Your task to perform on an android device: toggle pop-ups in chrome Image 0: 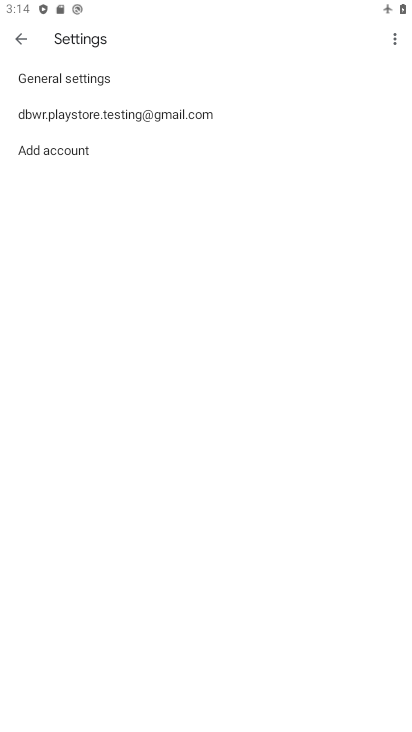
Step 0: press home button
Your task to perform on an android device: toggle pop-ups in chrome Image 1: 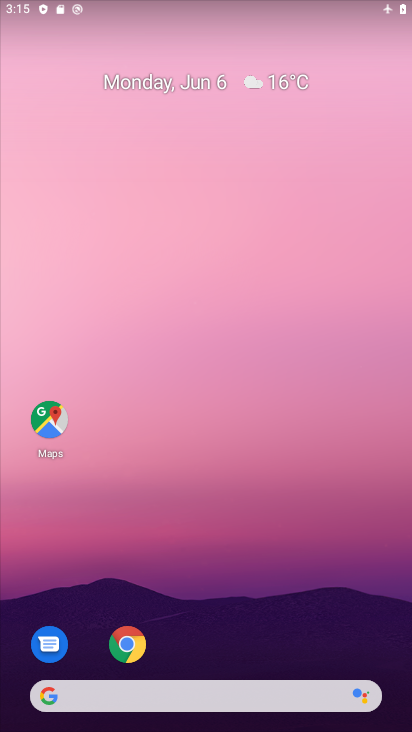
Step 1: drag from (201, 671) to (205, 371)
Your task to perform on an android device: toggle pop-ups in chrome Image 2: 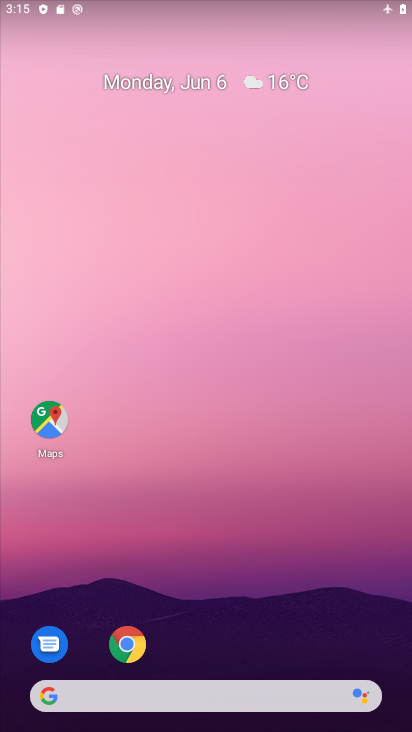
Step 2: click (126, 644)
Your task to perform on an android device: toggle pop-ups in chrome Image 3: 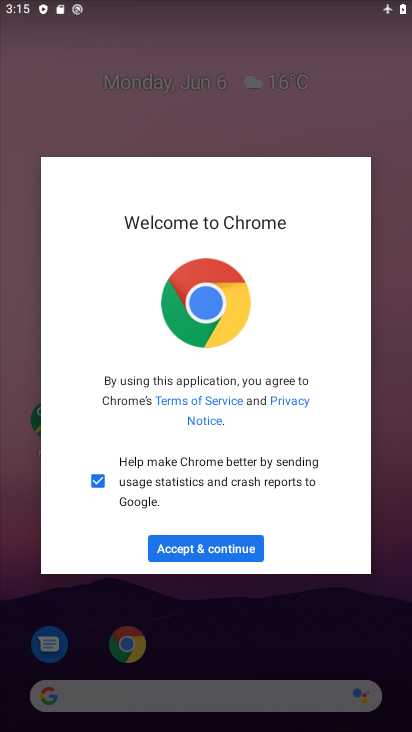
Step 3: click (211, 552)
Your task to perform on an android device: toggle pop-ups in chrome Image 4: 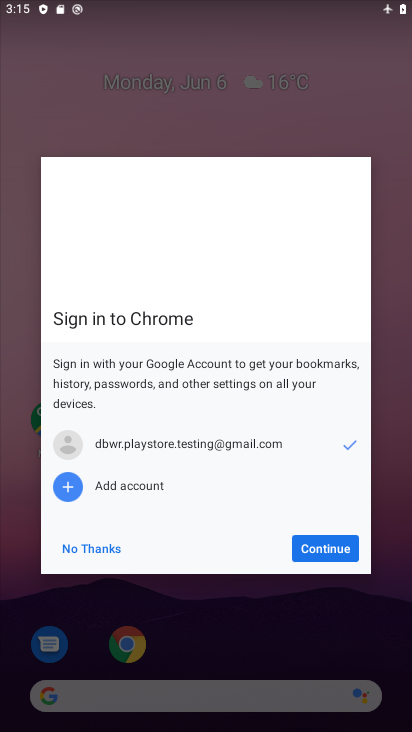
Step 4: click (338, 562)
Your task to perform on an android device: toggle pop-ups in chrome Image 5: 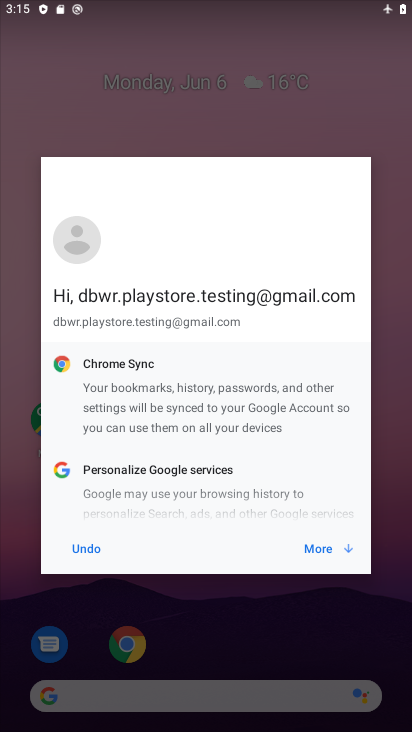
Step 5: click (327, 543)
Your task to perform on an android device: toggle pop-ups in chrome Image 6: 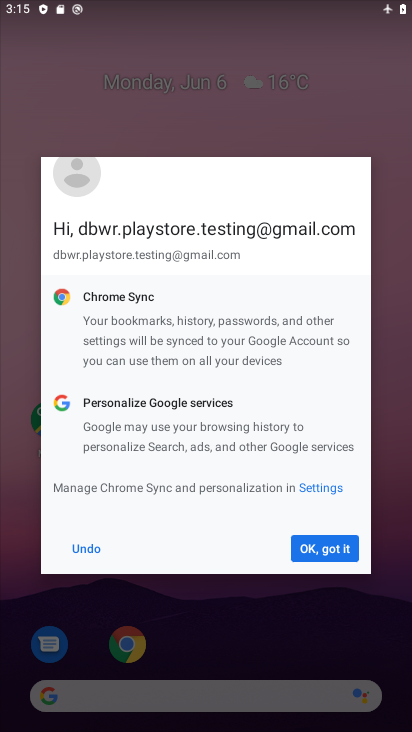
Step 6: click (327, 543)
Your task to perform on an android device: toggle pop-ups in chrome Image 7: 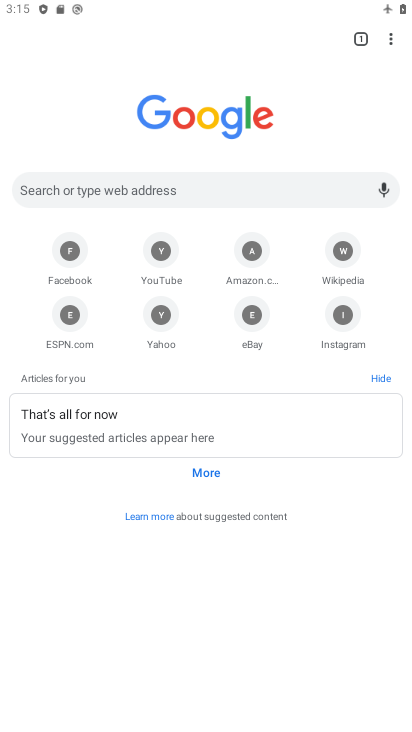
Step 7: click (395, 42)
Your task to perform on an android device: toggle pop-ups in chrome Image 8: 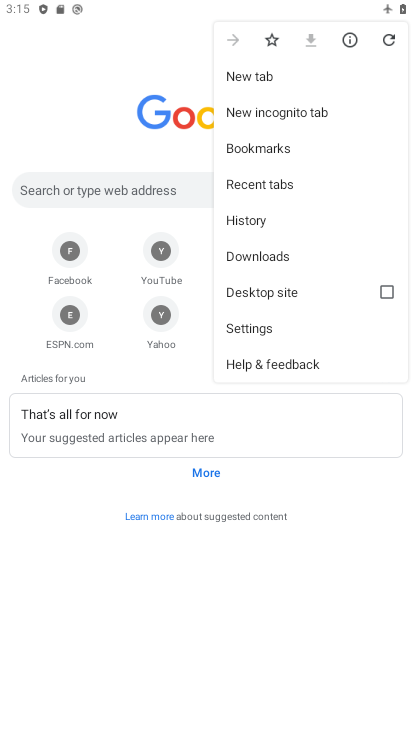
Step 8: click (254, 331)
Your task to perform on an android device: toggle pop-ups in chrome Image 9: 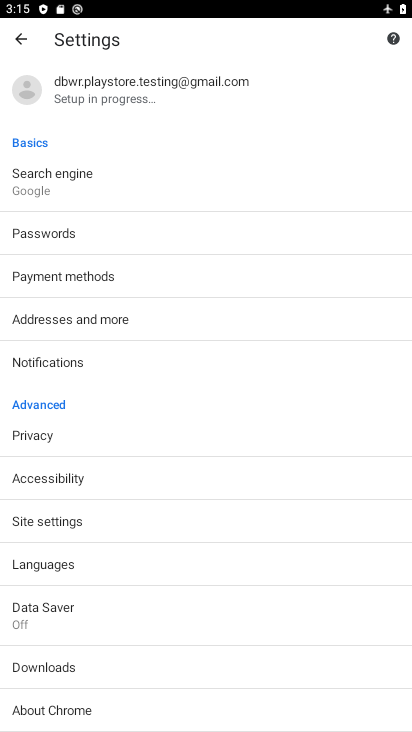
Step 9: click (74, 526)
Your task to perform on an android device: toggle pop-ups in chrome Image 10: 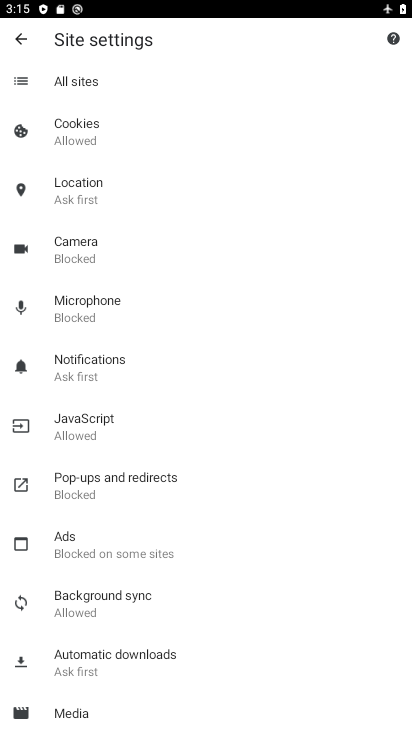
Step 10: click (99, 479)
Your task to perform on an android device: toggle pop-ups in chrome Image 11: 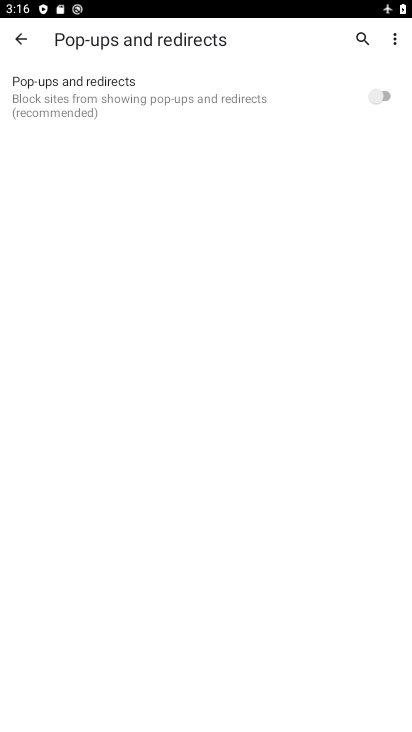
Step 11: click (388, 92)
Your task to perform on an android device: toggle pop-ups in chrome Image 12: 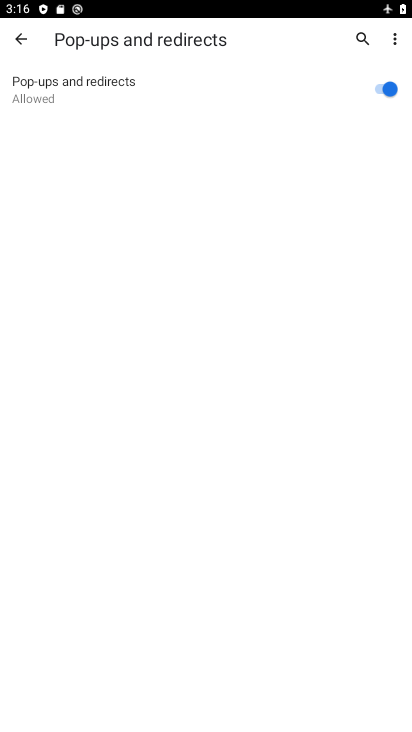
Step 12: task complete